Your task to perform on an android device: find which apps use the phone's location Image 0: 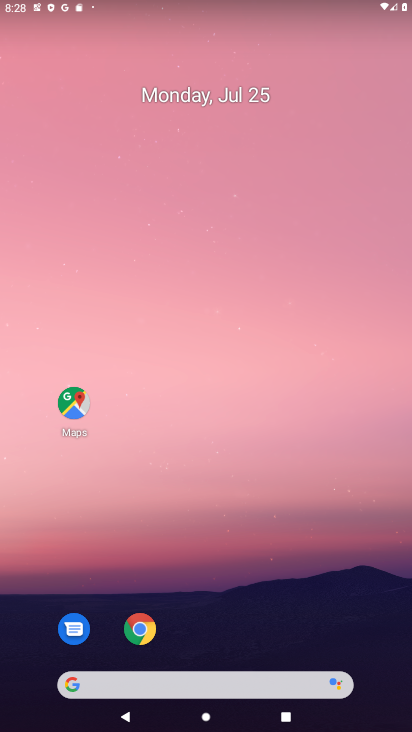
Step 0: drag from (291, 630) to (272, 0)
Your task to perform on an android device: find which apps use the phone's location Image 1: 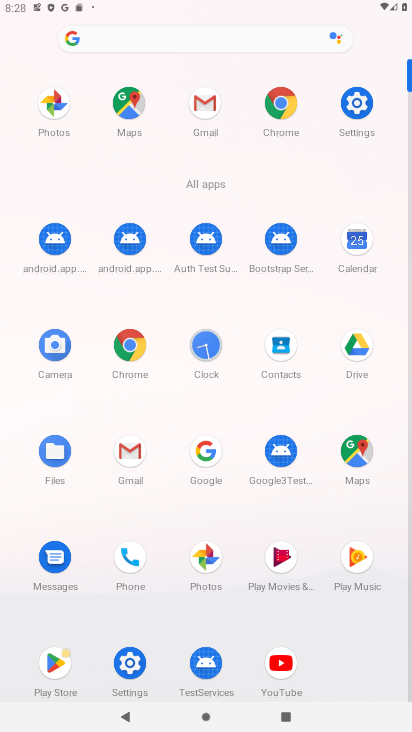
Step 1: click (352, 101)
Your task to perform on an android device: find which apps use the phone's location Image 2: 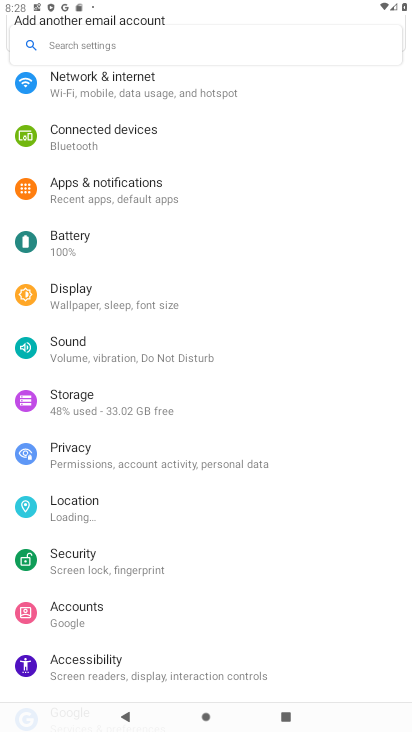
Step 2: click (69, 493)
Your task to perform on an android device: find which apps use the phone's location Image 3: 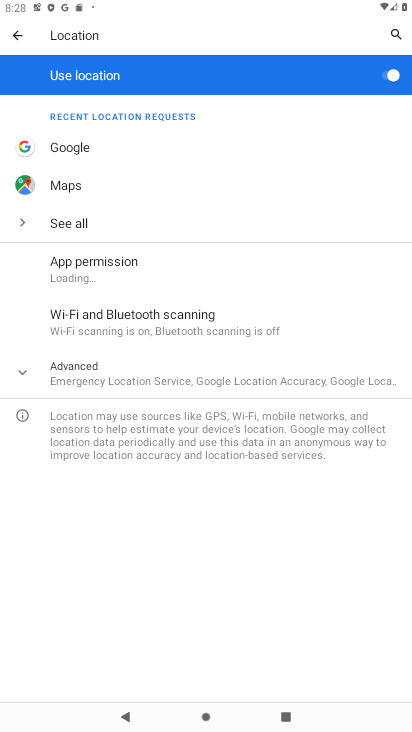
Step 3: click (73, 266)
Your task to perform on an android device: find which apps use the phone's location Image 4: 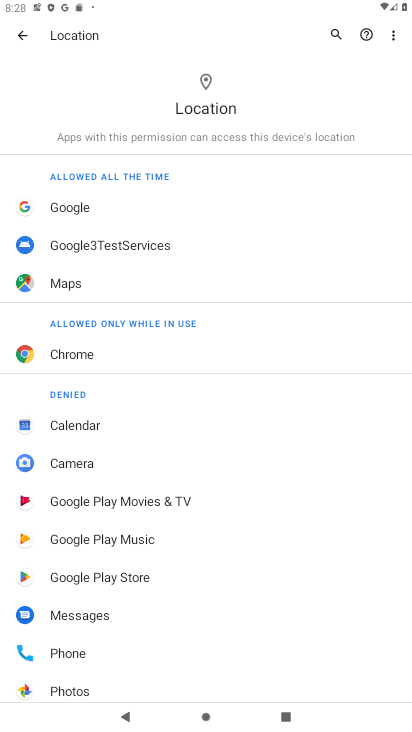
Step 4: task complete